Your task to perform on an android device: turn off translation in the chrome app Image 0: 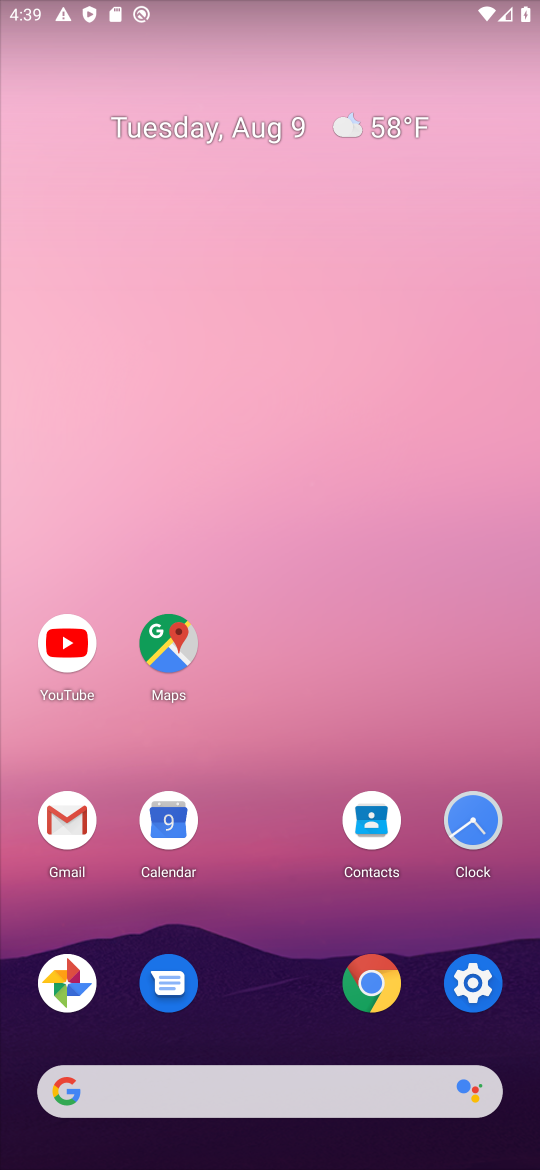
Step 0: click (372, 985)
Your task to perform on an android device: turn off translation in the chrome app Image 1: 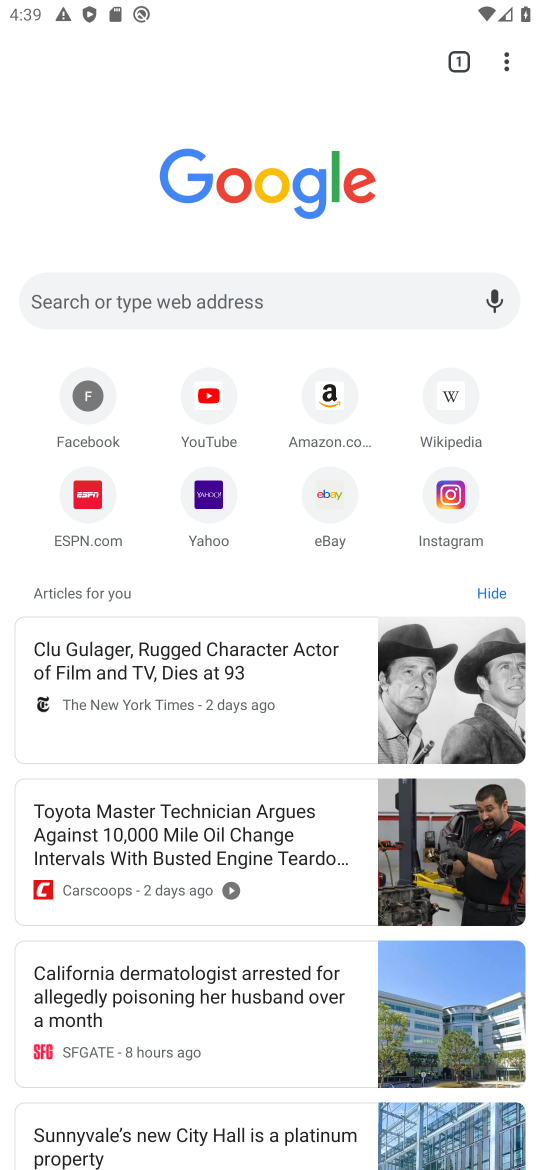
Step 1: click (507, 63)
Your task to perform on an android device: turn off translation in the chrome app Image 2: 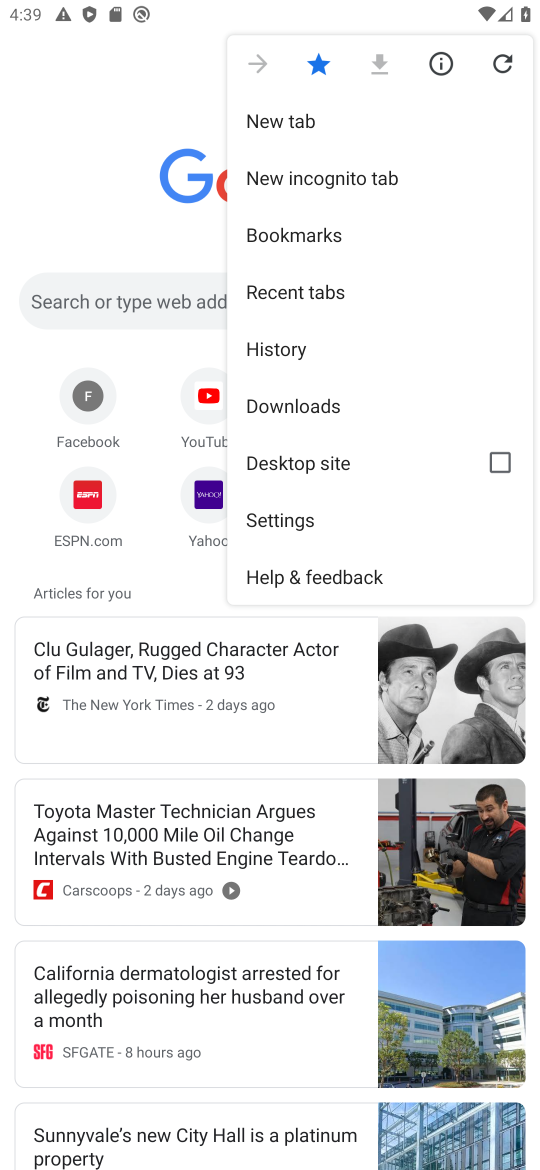
Step 2: click (295, 518)
Your task to perform on an android device: turn off translation in the chrome app Image 3: 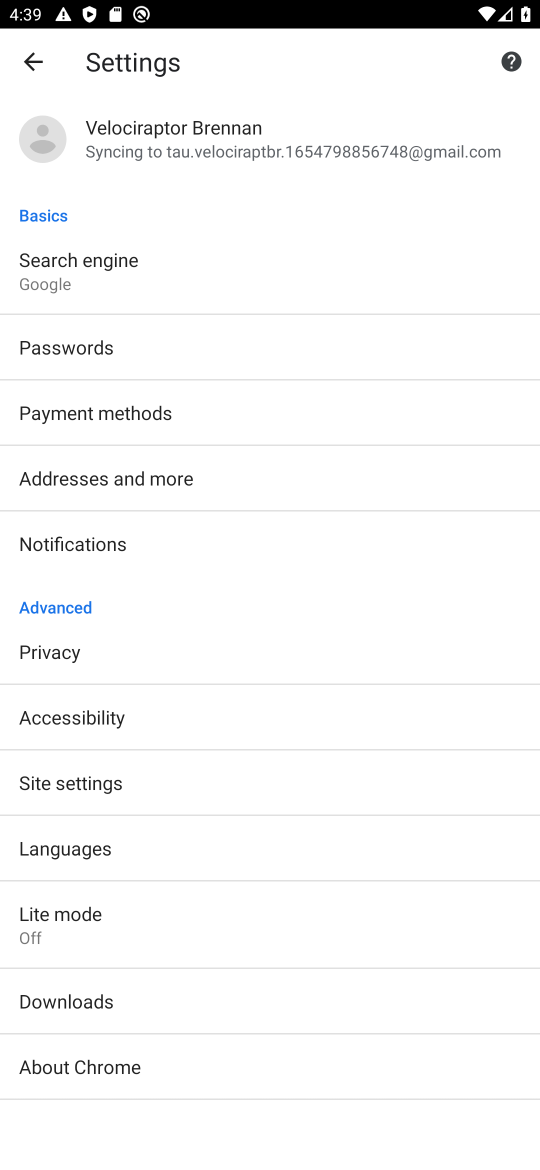
Step 3: click (75, 850)
Your task to perform on an android device: turn off translation in the chrome app Image 4: 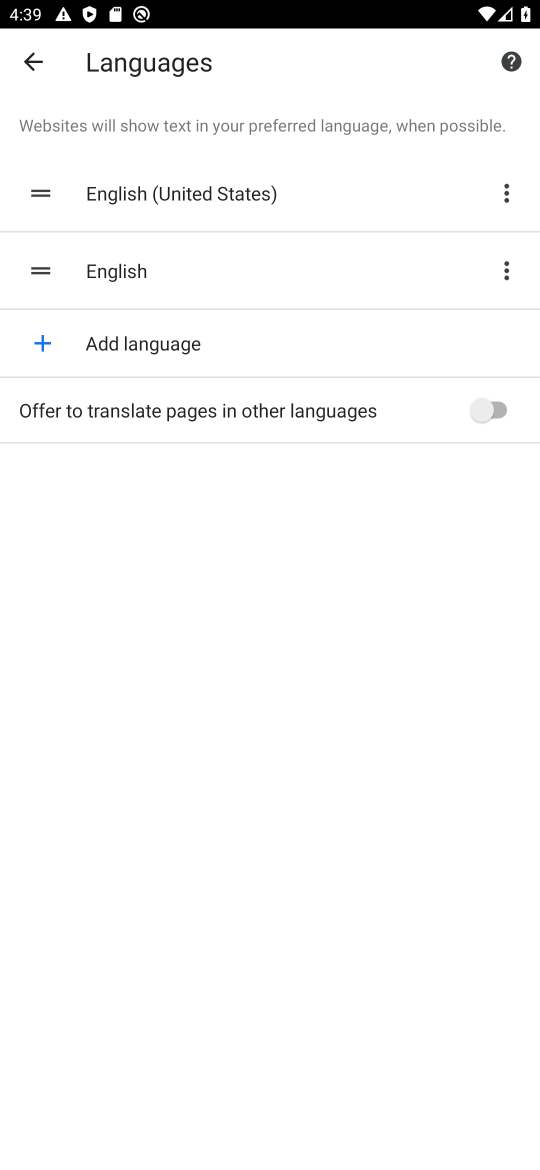
Step 4: task complete